Your task to perform on an android device: Open Google Chrome and click the shortcut for Amazon.com Image 0: 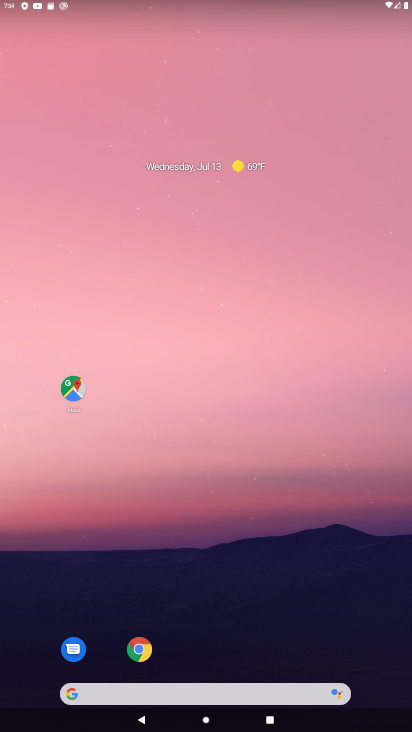
Step 0: click (138, 649)
Your task to perform on an android device: Open Google Chrome and click the shortcut for Amazon.com Image 1: 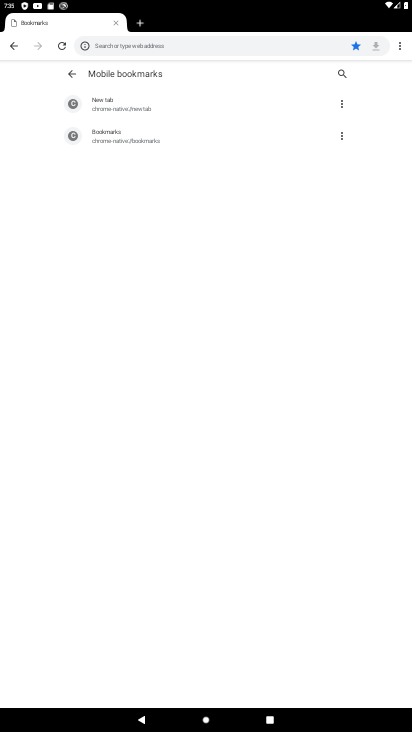
Step 1: click (284, 42)
Your task to perform on an android device: Open Google Chrome and click the shortcut for Amazon.com Image 2: 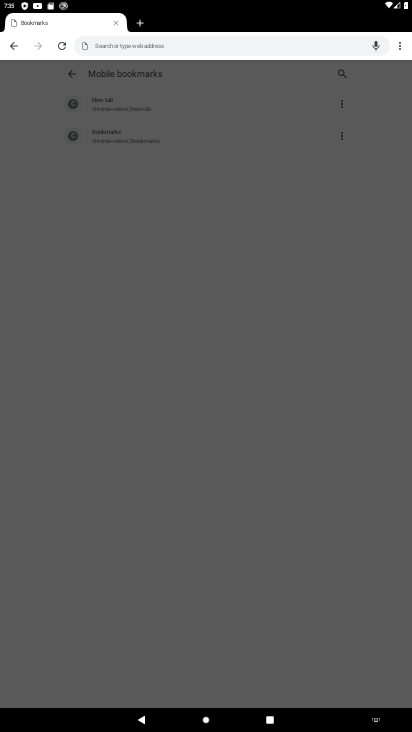
Step 2: click (228, 48)
Your task to perform on an android device: Open Google Chrome and click the shortcut for Amazon.com Image 3: 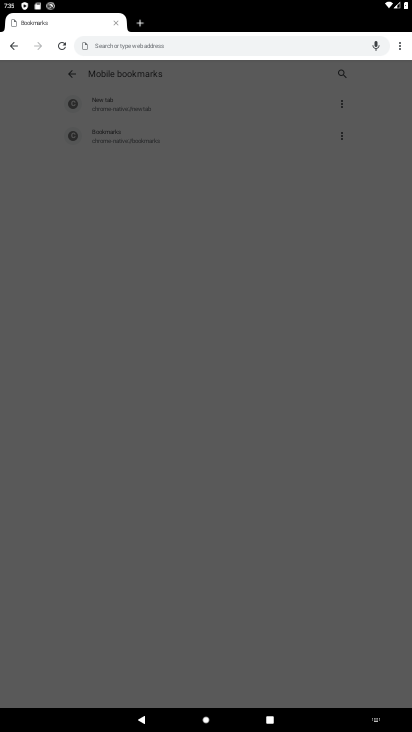
Step 3: type "Amazon"
Your task to perform on an android device: Open Google Chrome and click the shortcut for Amazon.com Image 4: 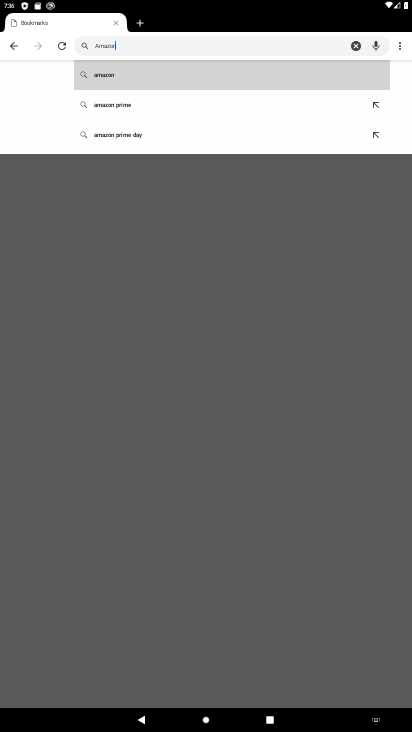
Step 4: click (174, 85)
Your task to perform on an android device: Open Google Chrome and click the shortcut for Amazon.com Image 5: 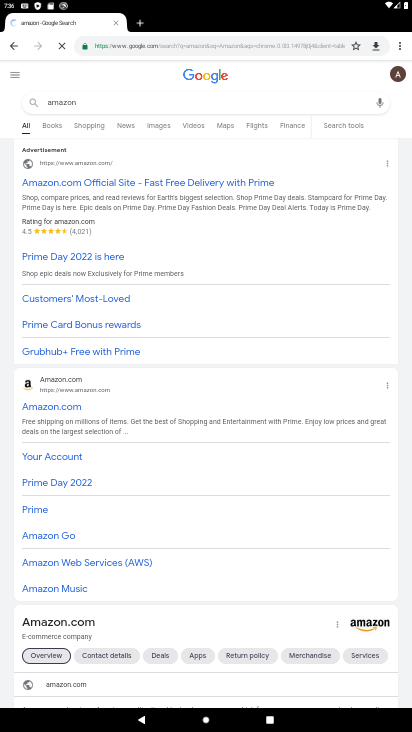
Step 5: click (47, 404)
Your task to perform on an android device: Open Google Chrome and click the shortcut for Amazon.com Image 6: 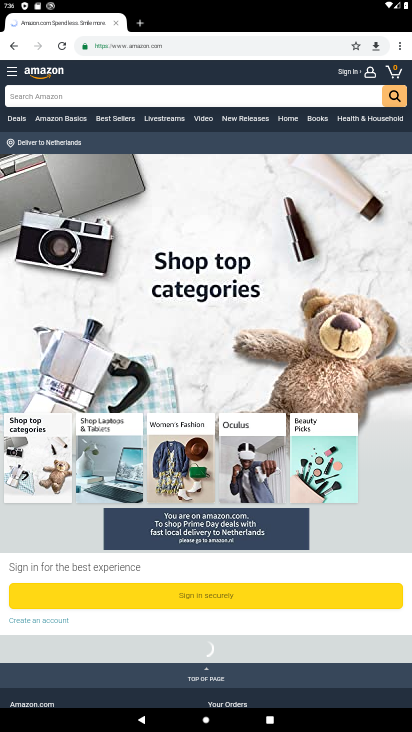
Step 6: click (400, 47)
Your task to perform on an android device: Open Google Chrome and click the shortcut for Amazon.com Image 7: 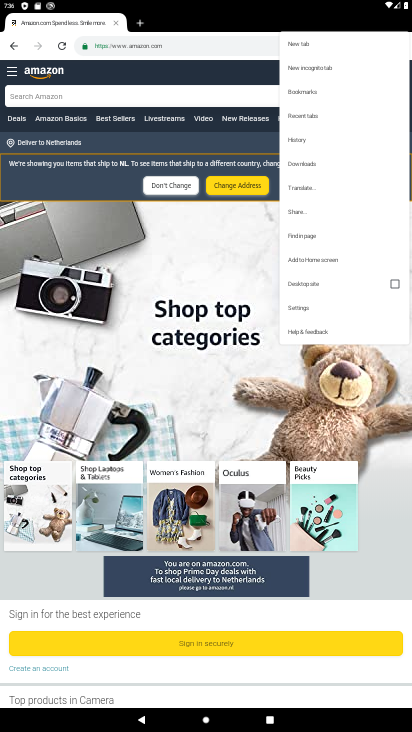
Step 7: click (321, 261)
Your task to perform on an android device: Open Google Chrome and click the shortcut for Amazon.com Image 8: 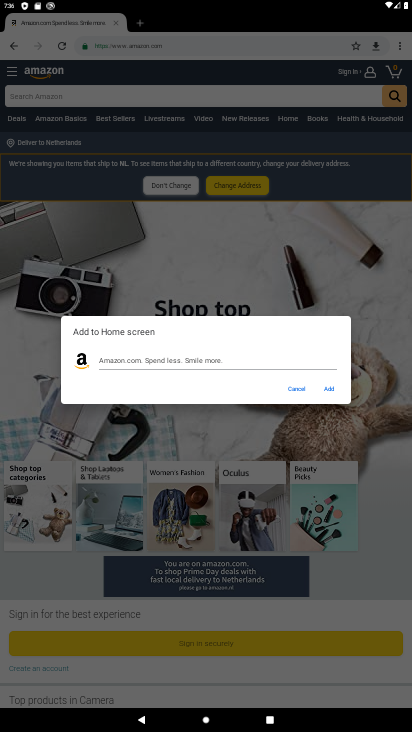
Step 8: click (331, 391)
Your task to perform on an android device: Open Google Chrome and click the shortcut for Amazon.com Image 9: 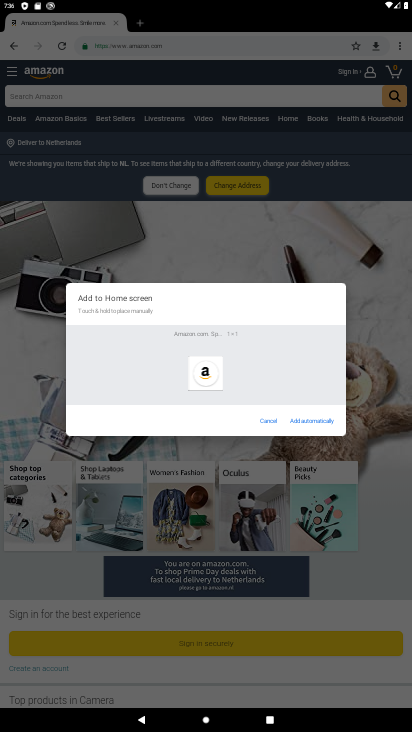
Step 9: click (320, 422)
Your task to perform on an android device: Open Google Chrome and click the shortcut for Amazon.com Image 10: 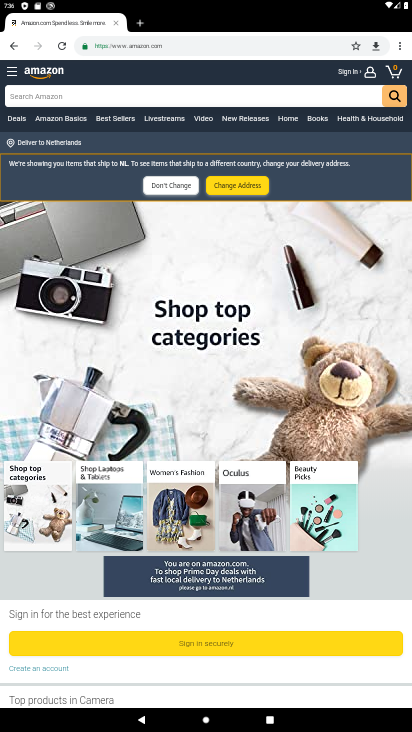
Step 10: task complete